Your task to perform on an android device: turn off improve location accuracy Image 0: 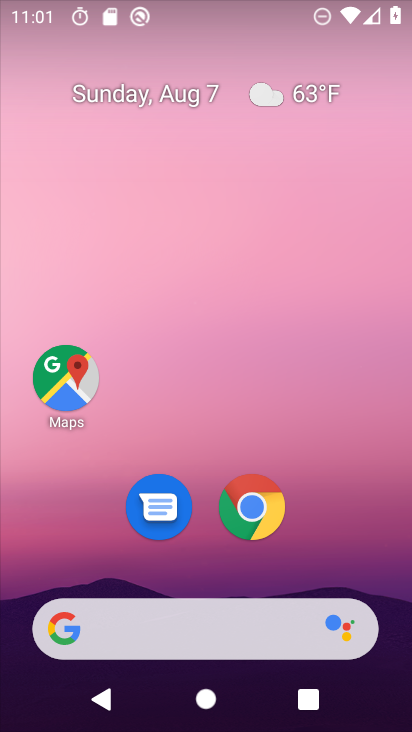
Step 0: drag from (333, 484) to (266, 15)
Your task to perform on an android device: turn off improve location accuracy Image 1: 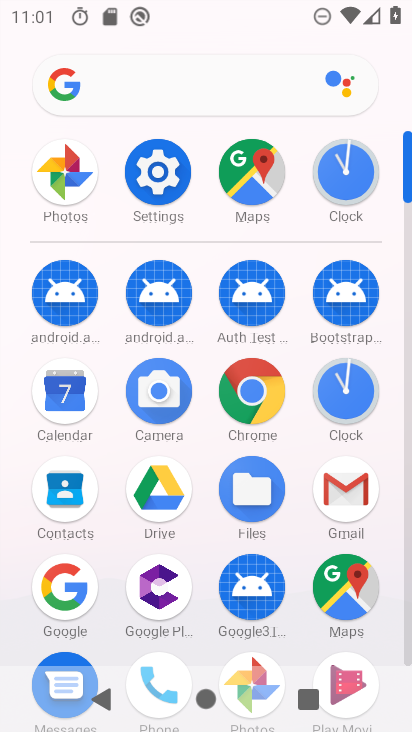
Step 1: click (152, 166)
Your task to perform on an android device: turn off improve location accuracy Image 2: 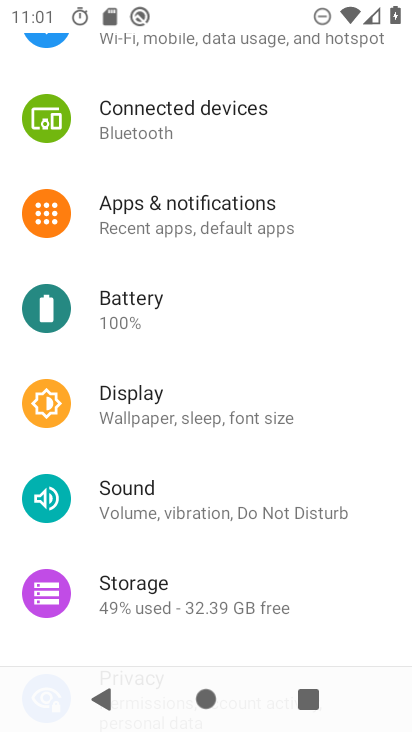
Step 2: drag from (249, 557) to (248, 270)
Your task to perform on an android device: turn off improve location accuracy Image 3: 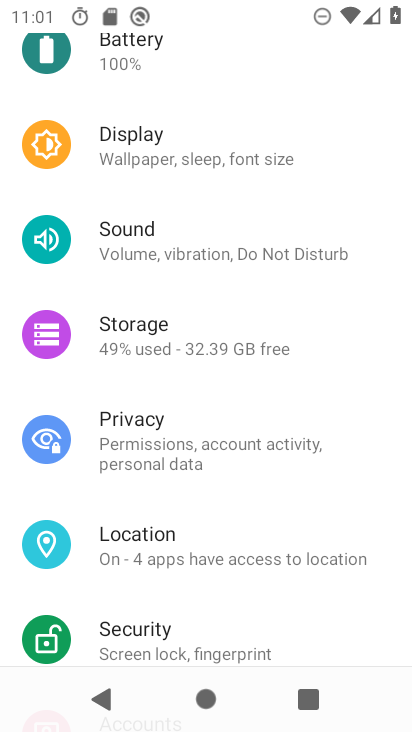
Step 3: click (135, 557)
Your task to perform on an android device: turn off improve location accuracy Image 4: 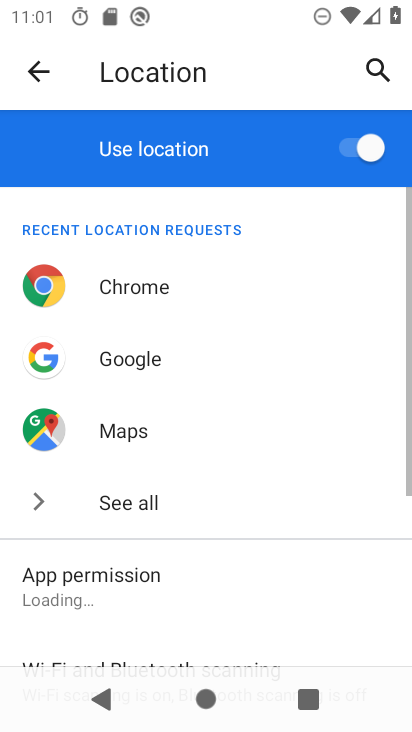
Step 4: drag from (202, 372) to (209, 311)
Your task to perform on an android device: turn off improve location accuracy Image 5: 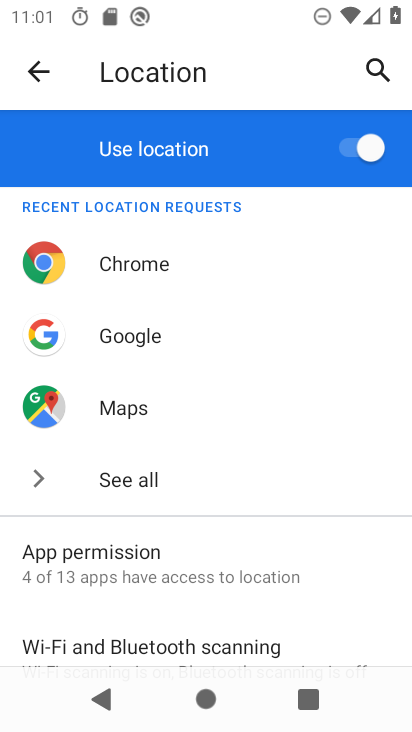
Step 5: drag from (333, 646) to (337, 311)
Your task to perform on an android device: turn off improve location accuracy Image 6: 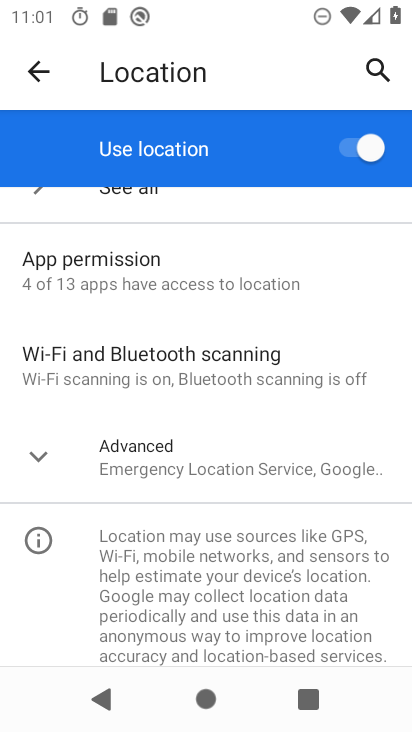
Step 6: click (171, 471)
Your task to perform on an android device: turn off improve location accuracy Image 7: 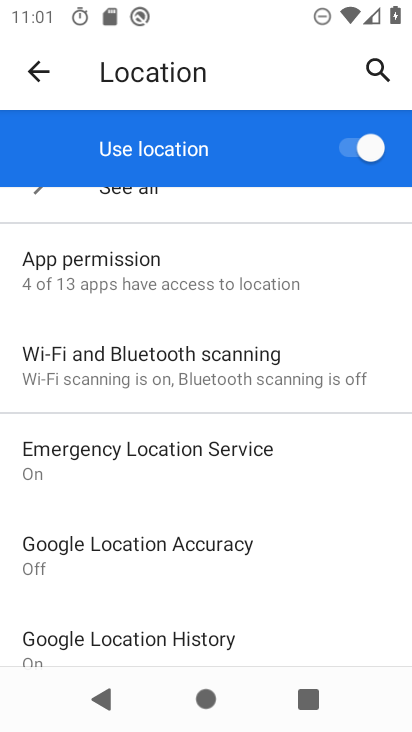
Step 7: click (208, 565)
Your task to perform on an android device: turn off improve location accuracy Image 8: 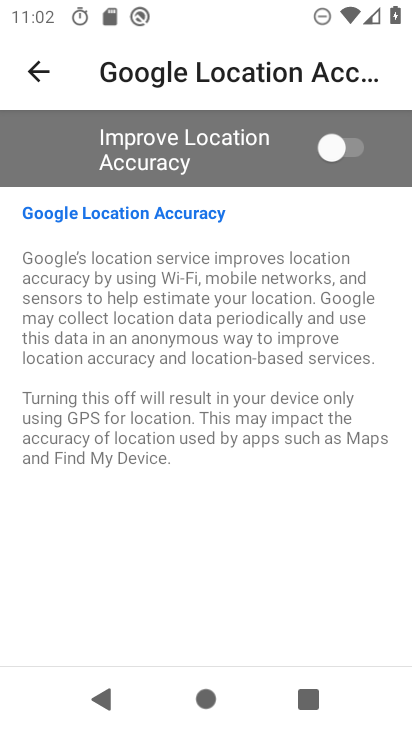
Step 8: task complete